Your task to perform on an android device: Show me the alarms in the clock app Image 0: 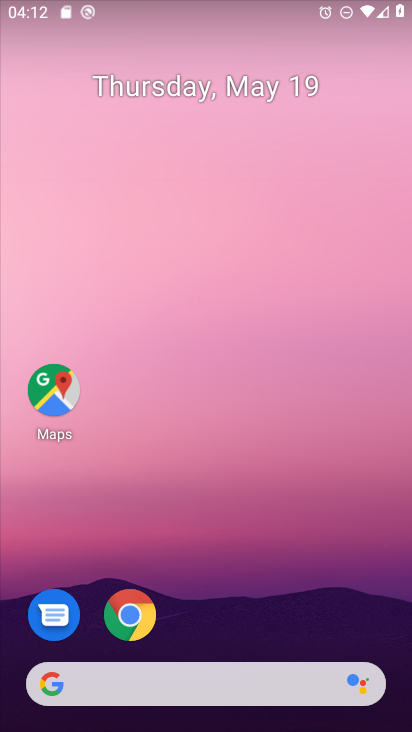
Step 0: drag from (212, 611) to (216, 80)
Your task to perform on an android device: Show me the alarms in the clock app Image 1: 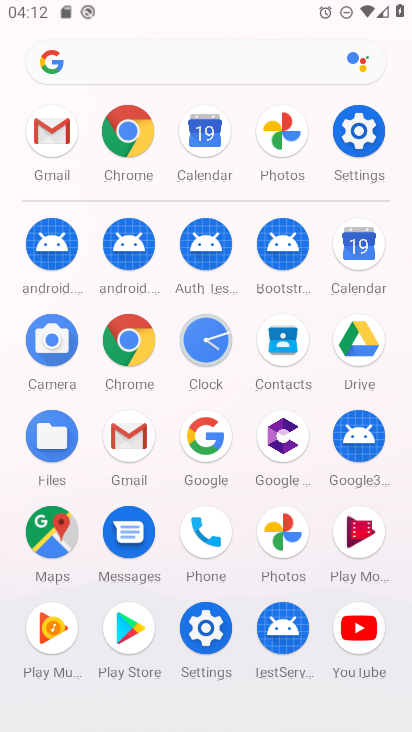
Step 1: click (369, 129)
Your task to perform on an android device: Show me the alarms in the clock app Image 2: 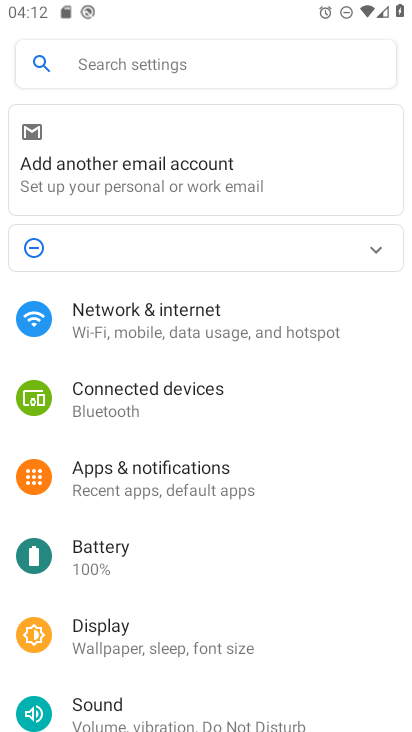
Step 2: press home button
Your task to perform on an android device: Show me the alarms in the clock app Image 3: 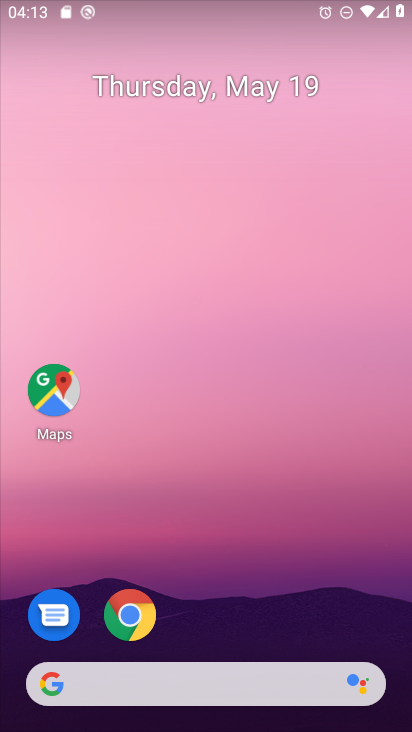
Step 3: drag from (300, 609) to (281, 62)
Your task to perform on an android device: Show me the alarms in the clock app Image 4: 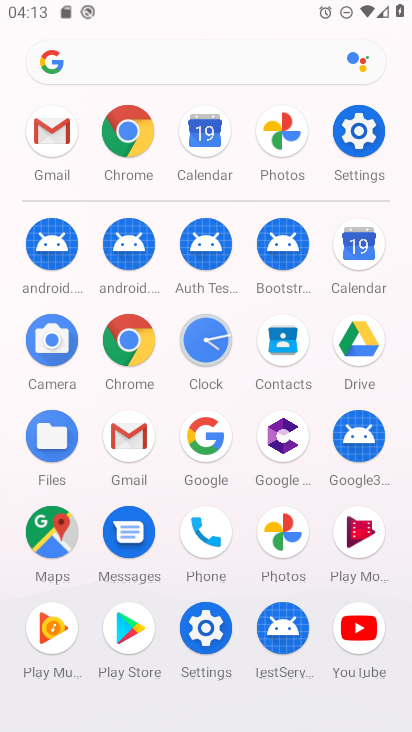
Step 4: click (193, 350)
Your task to perform on an android device: Show me the alarms in the clock app Image 5: 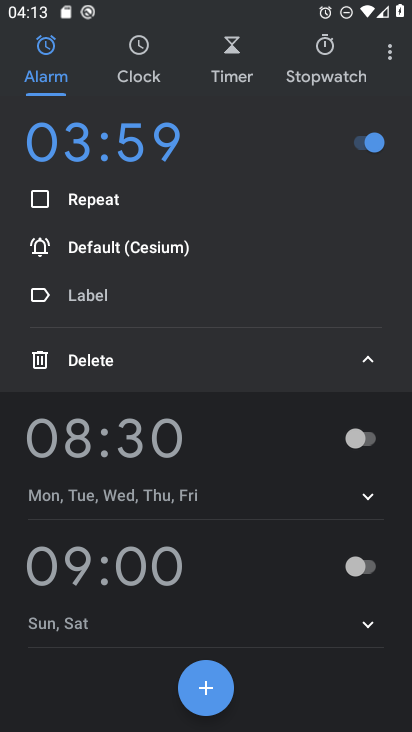
Step 5: task complete